Your task to perform on an android device: turn on showing notifications on the lock screen Image 0: 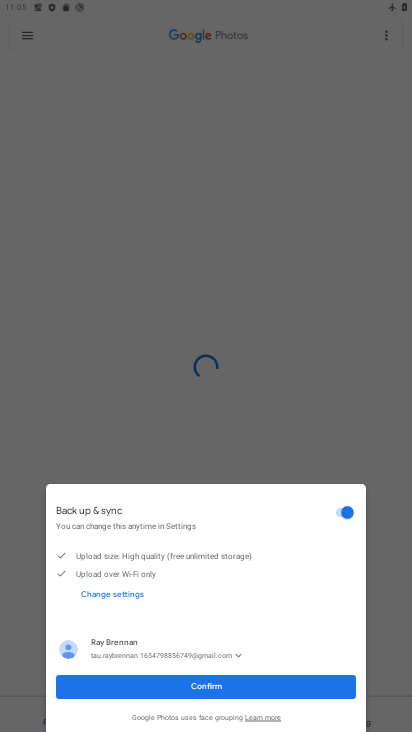
Step 0: press home button
Your task to perform on an android device: turn on showing notifications on the lock screen Image 1: 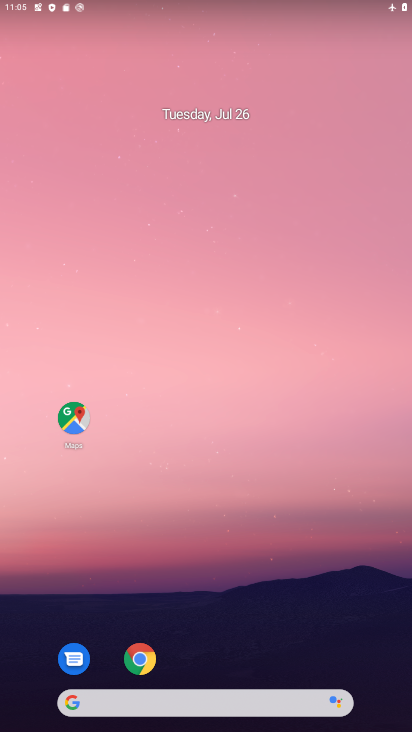
Step 1: drag from (189, 707) to (233, 38)
Your task to perform on an android device: turn on showing notifications on the lock screen Image 2: 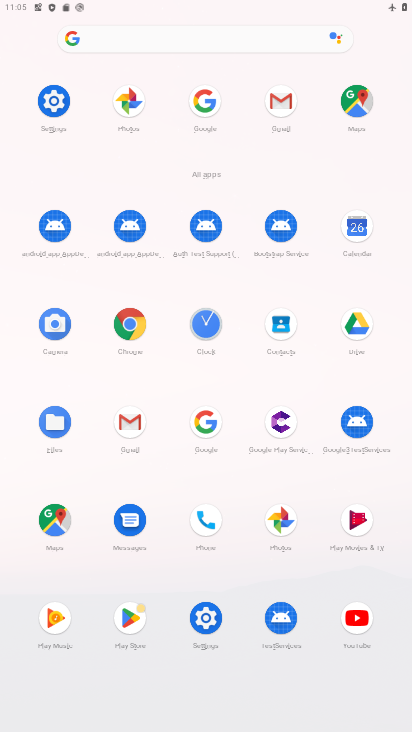
Step 2: click (54, 103)
Your task to perform on an android device: turn on showing notifications on the lock screen Image 3: 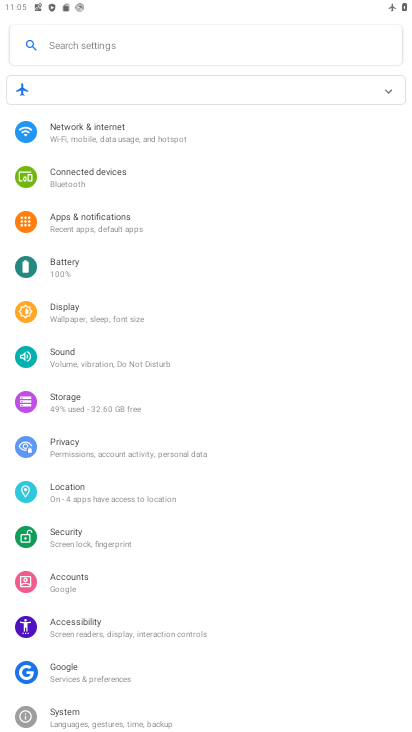
Step 3: click (106, 225)
Your task to perform on an android device: turn on showing notifications on the lock screen Image 4: 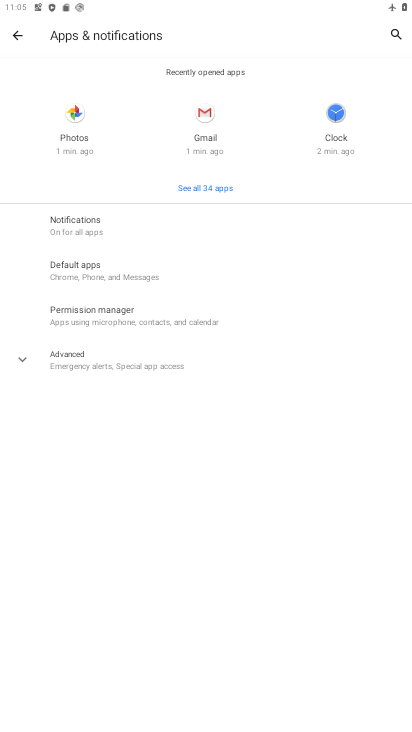
Step 4: click (88, 229)
Your task to perform on an android device: turn on showing notifications on the lock screen Image 5: 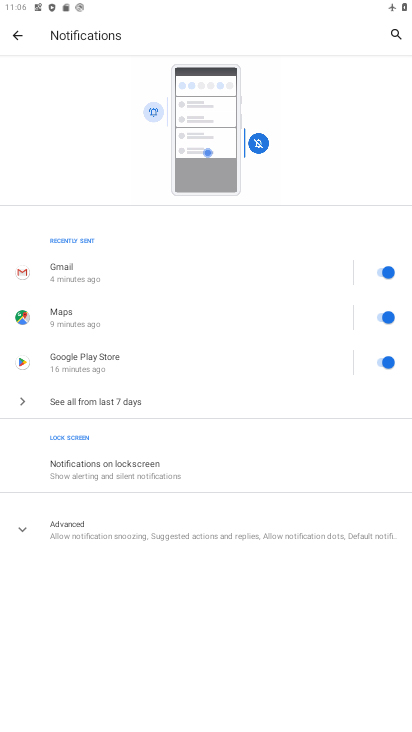
Step 5: click (121, 474)
Your task to perform on an android device: turn on showing notifications on the lock screen Image 6: 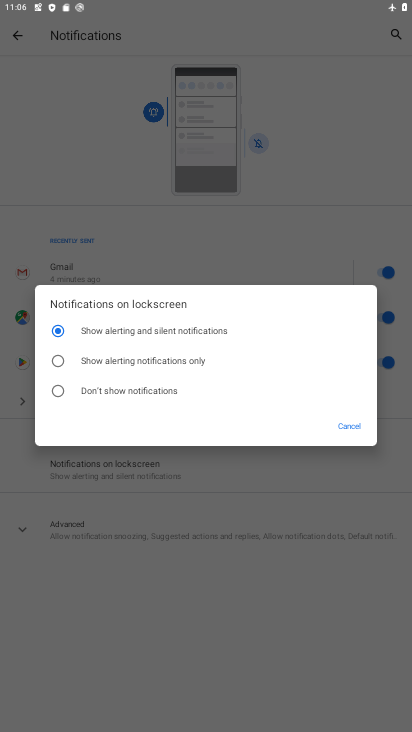
Step 6: click (63, 332)
Your task to perform on an android device: turn on showing notifications on the lock screen Image 7: 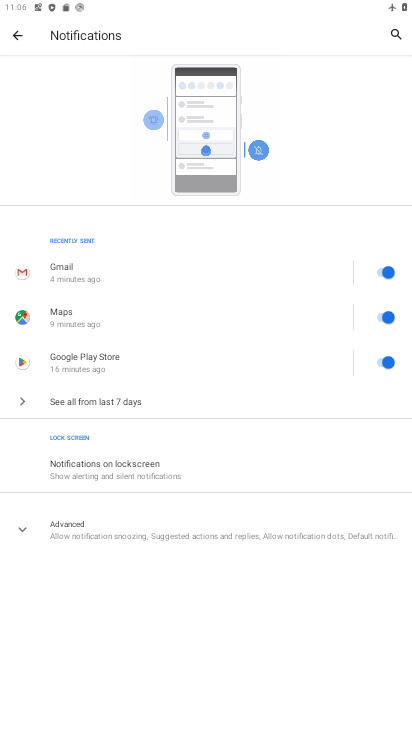
Step 7: task complete